Your task to perform on an android device: all mails in gmail Image 0: 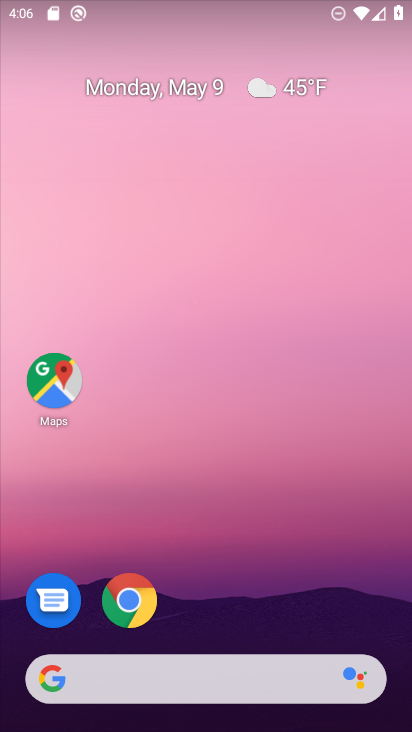
Step 0: drag from (256, 562) to (221, 25)
Your task to perform on an android device: all mails in gmail Image 1: 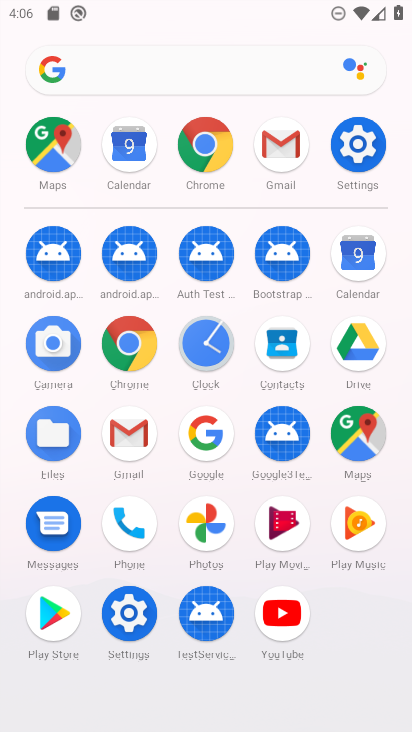
Step 1: click (124, 426)
Your task to perform on an android device: all mails in gmail Image 2: 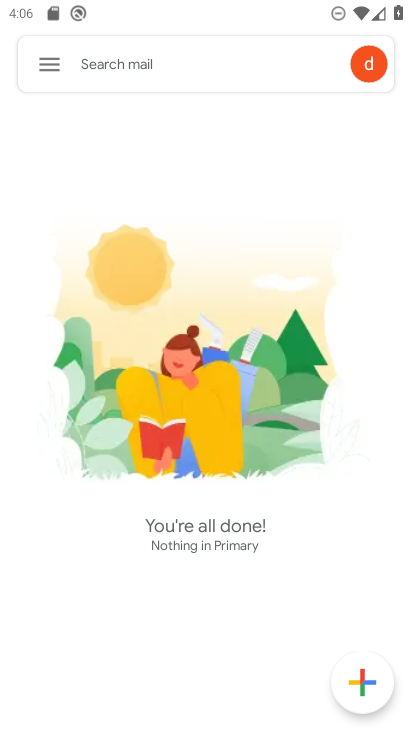
Step 2: click (50, 56)
Your task to perform on an android device: all mails in gmail Image 3: 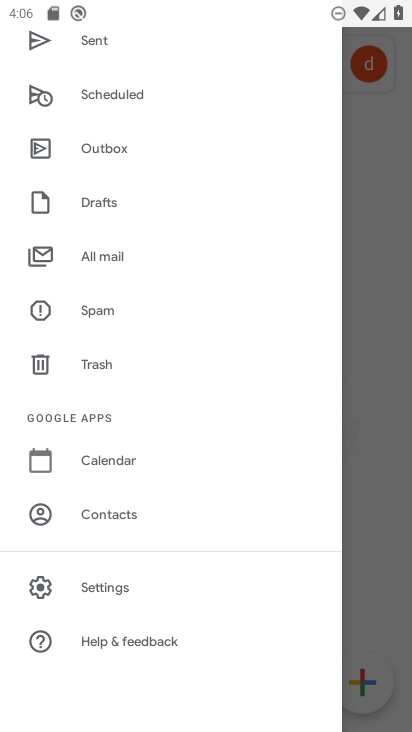
Step 3: click (115, 257)
Your task to perform on an android device: all mails in gmail Image 4: 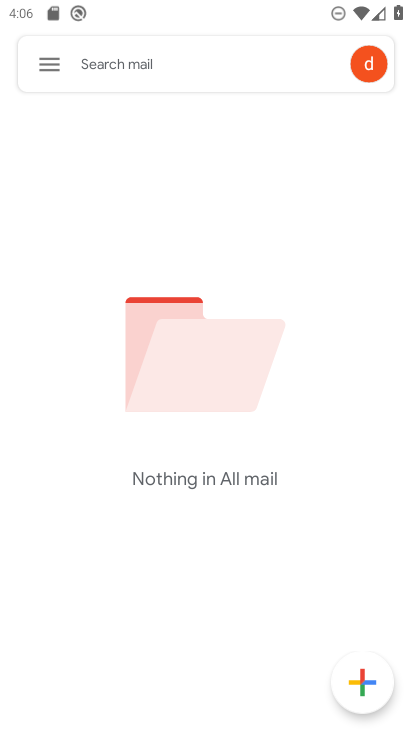
Step 4: click (40, 63)
Your task to perform on an android device: all mails in gmail Image 5: 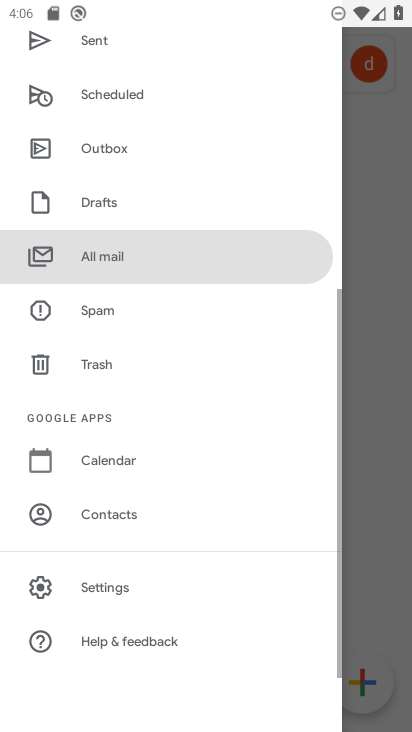
Step 5: drag from (201, 157) to (203, 615)
Your task to perform on an android device: all mails in gmail Image 6: 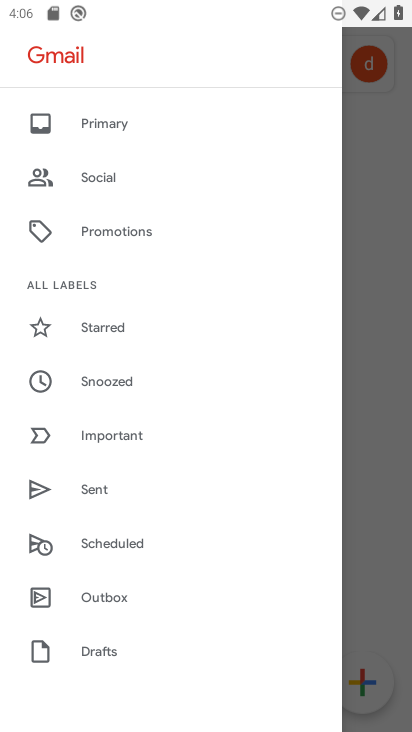
Step 6: drag from (197, 132) to (166, 525)
Your task to perform on an android device: all mails in gmail Image 7: 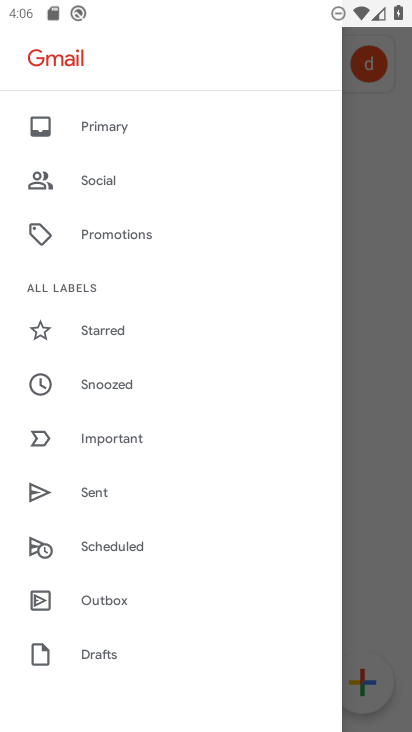
Step 7: click (111, 121)
Your task to perform on an android device: all mails in gmail Image 8: 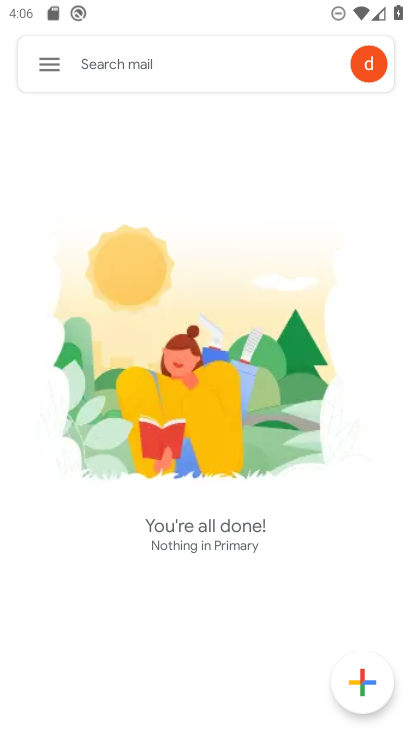
Step 8: click (31, 59)
Your task to perform on an android device: all mails in gmail Image 9: 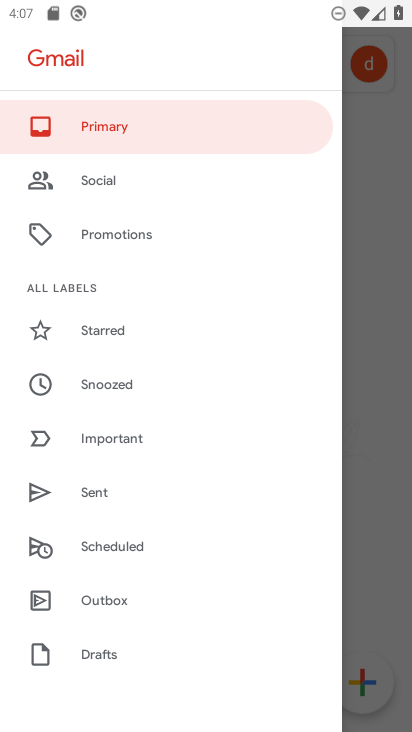
Step 9: drag from (186, 541) to (225, 134)
Your task to perform on an android device: all mails in gmail Image 10: 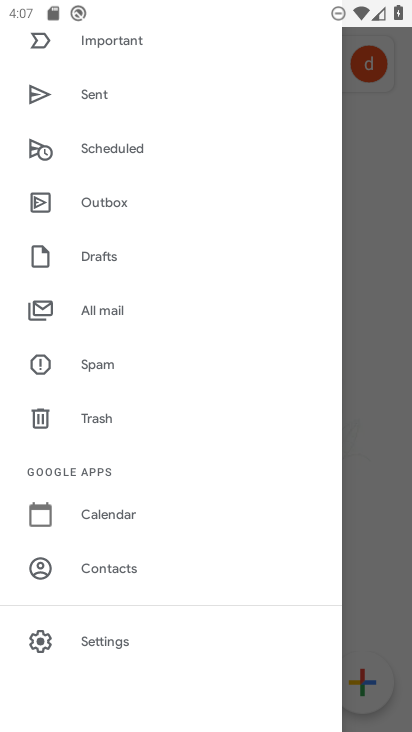
Step 10: click (109, 299)
Your task to perform on an android device: all mails in gmail Image 11: 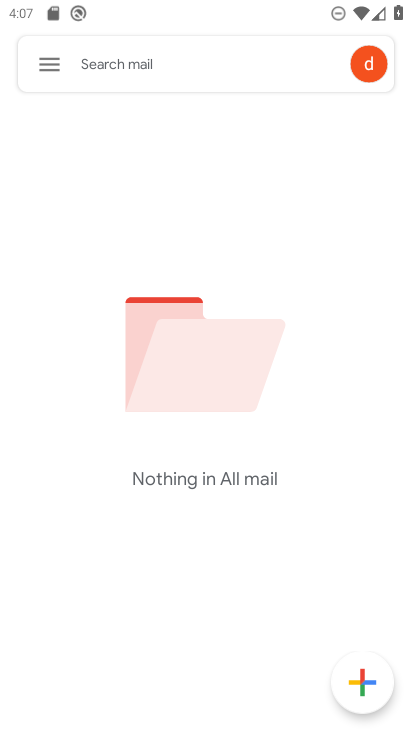
Step 11: task complete